Your task to perform on an android device: turn on priority inbox in the gmail app Image 0: 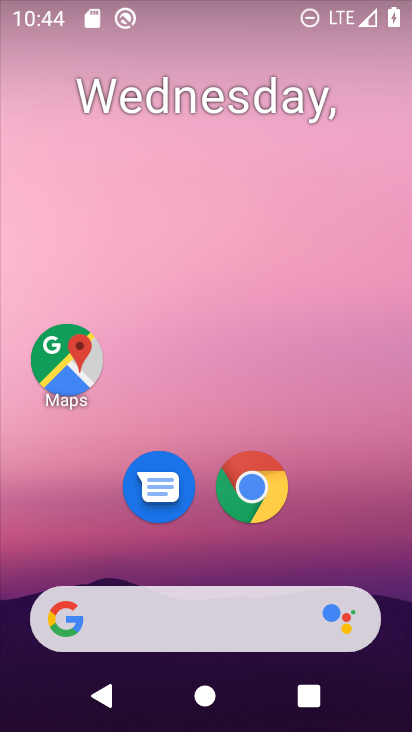
Step 0: drag from (314, 532) to (248, 3)
Your task to perform on an android device: turn on priority inbox in the gmail app Image 1: 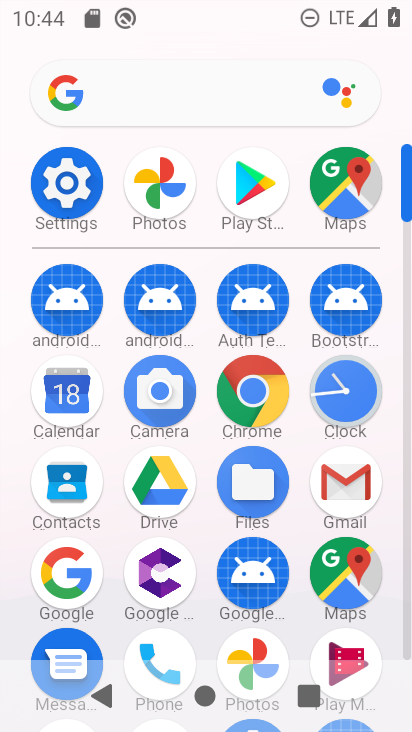
Step 1: click (345, 473)
Your task to perform on an android device: turn on priority inbox in the gmail app Image 2: 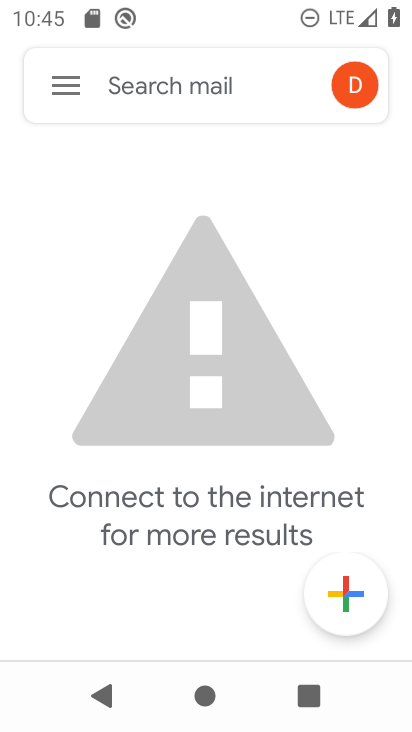
Step 2: click (62, 78)
Your task to perform on an android device: turn on priority inbox in the gmail app Image 3: 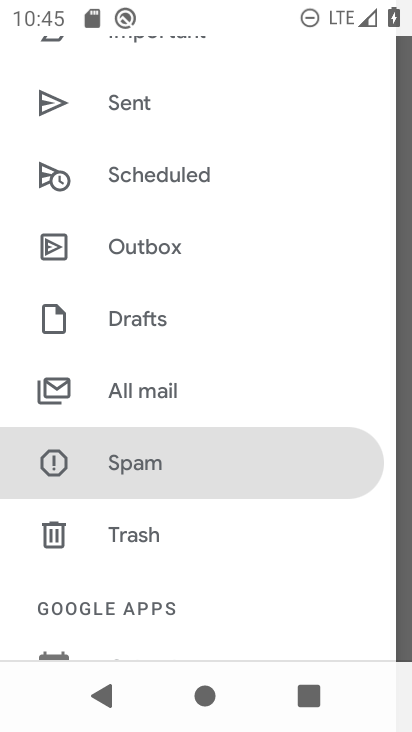
Step 3: drag from (225, 537) to (216, 172)
Your task to perform on an android device: turn on priority inbox in the gmail app Image 4: 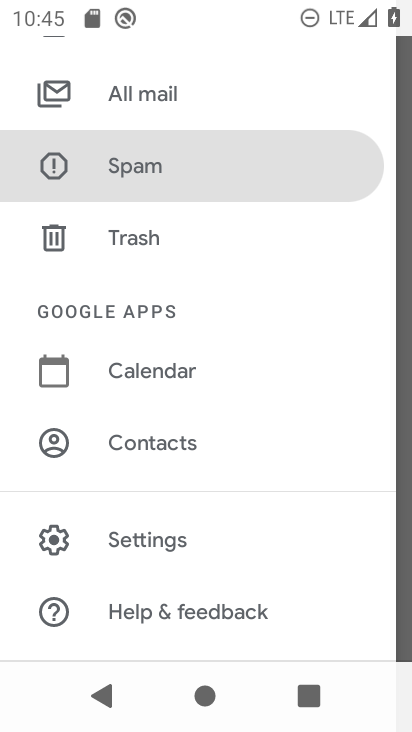
Step 4: click (154, 527)
Your task to perform on an android device: turn on priority inbox in the gmail app Image 5: 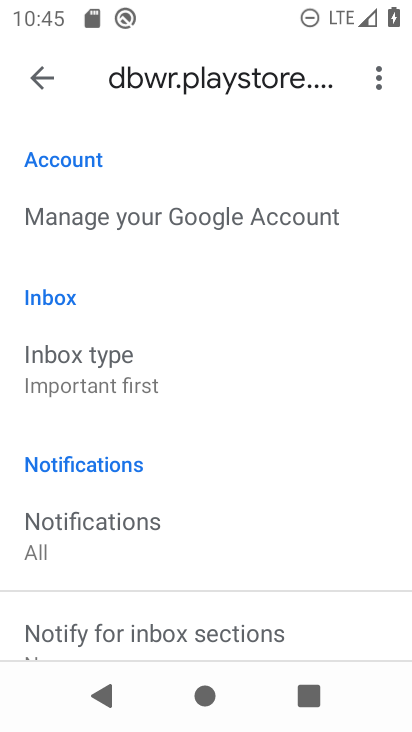
Step 5: click (102, 370)
Your task to perform on an android device: turn on priority inbox in the gmail app Image 6: 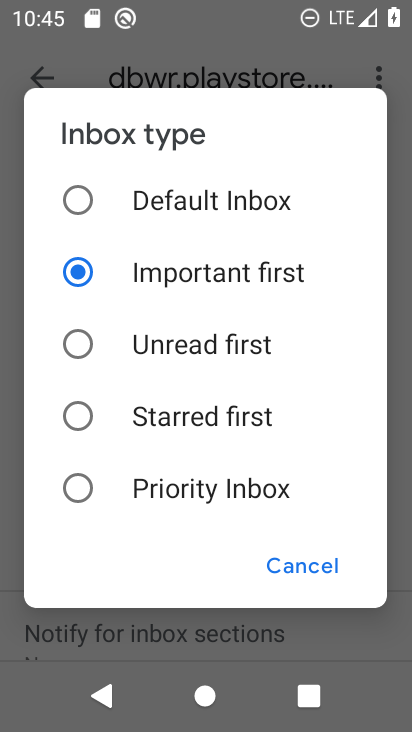
Step 6: click (79, 497)
Your task to perform on an android device: turn on priority inbox in the gmail app Image 7: 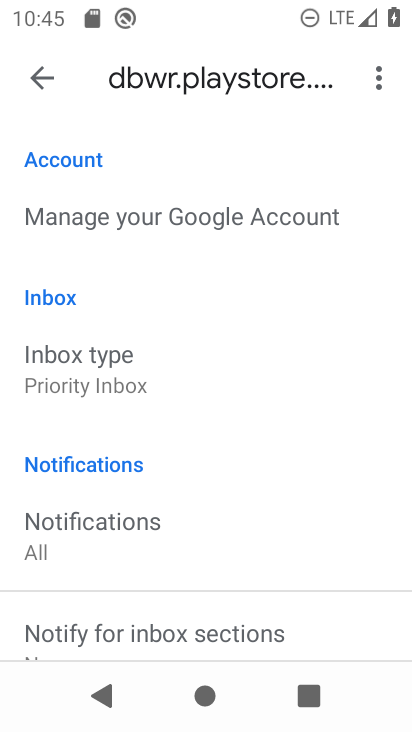
Step 7: task complete